Your task to perform on an android device: Open privacy settings Image 0: 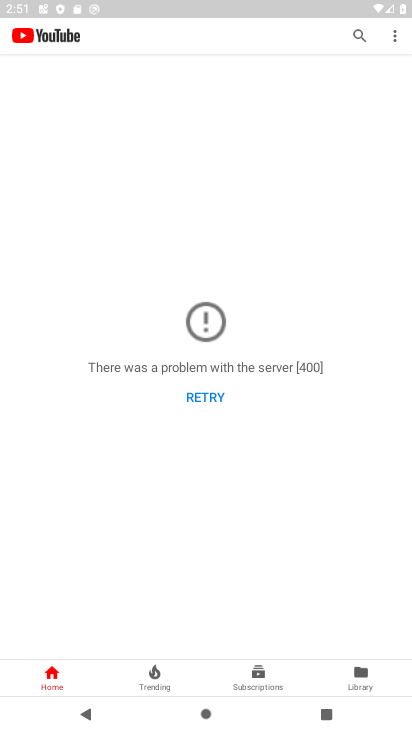
Step 0: press back button
Your task to perform on an android device: Open privacy settings Image 1: 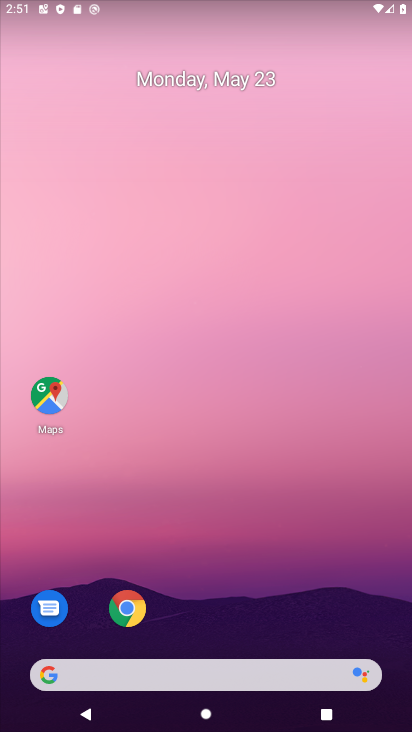
Step 1: drag from (213, 574) to (227, 206)
Your task to perform on an android device: Open privacy settings Image 2: 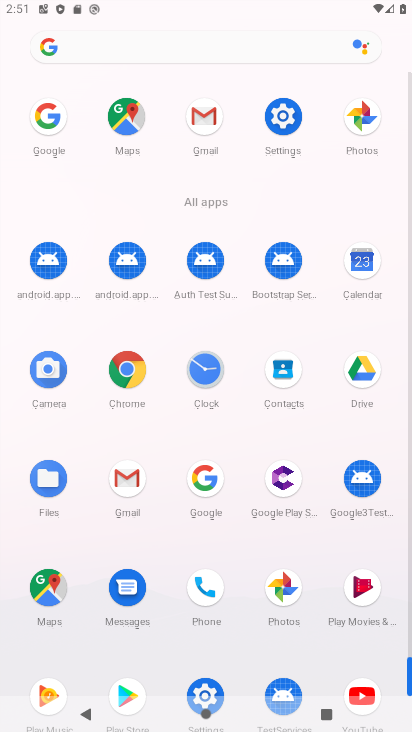
Step 2: click (284, 115)
Your task to perform on an android device: Open privacy settings Image 3: 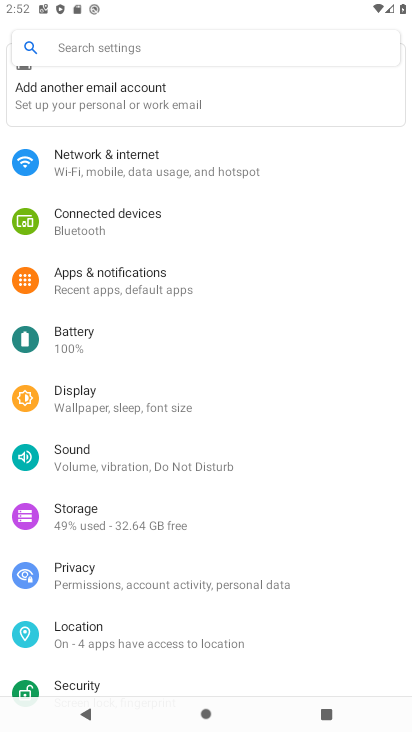
Step 3: click (91, 585)
Your task to perform on an android device: Open privacy settings Image 4: 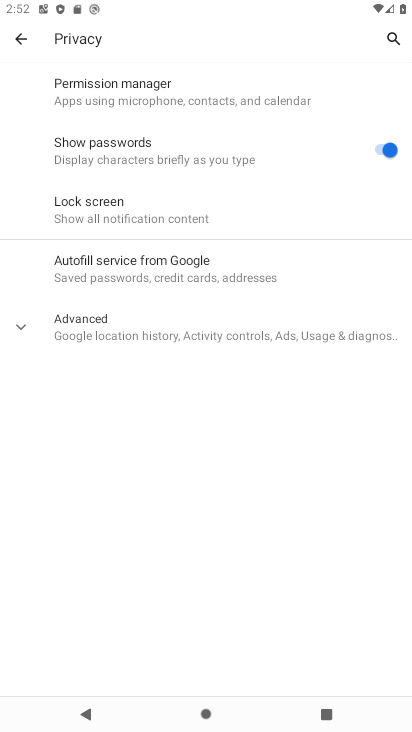
Step 4: task complete